Your task to perform on an android device: check android version Image 0: 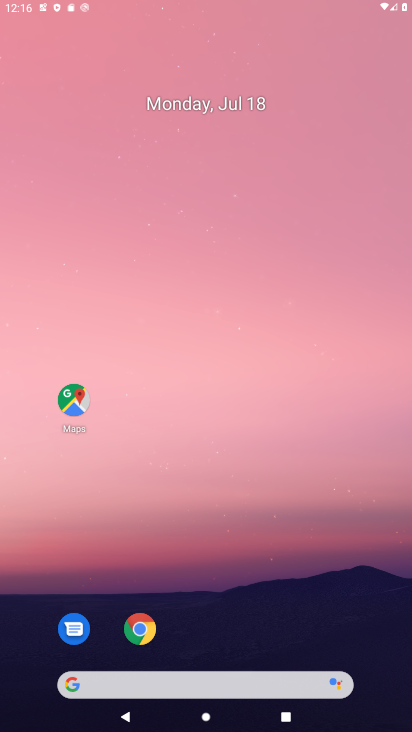
Step 0: press home button
Your task to perform on an android device: check android version Image 1: 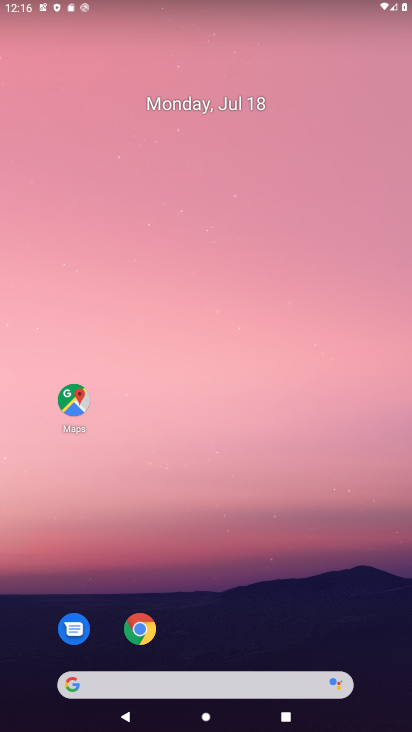
Step 1: drag from (211, 651) to (194, 49)
Your task to perform on an android device: check android version Image 2: 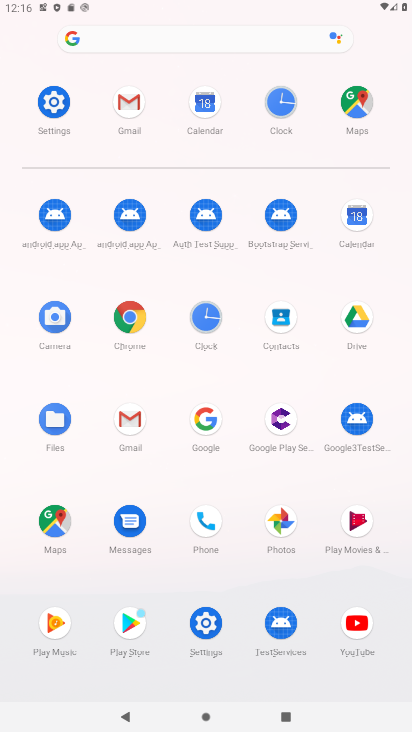
Step 2: click (53, 95)
Your task to perform on an android device: check android version Image 3: 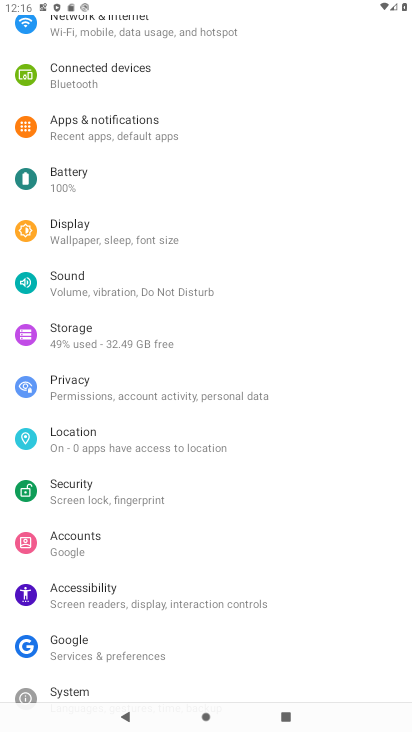
Step 3: drag from (178, 648) to (175, 89)
Your task to perform on an android device: check android version Image 4: 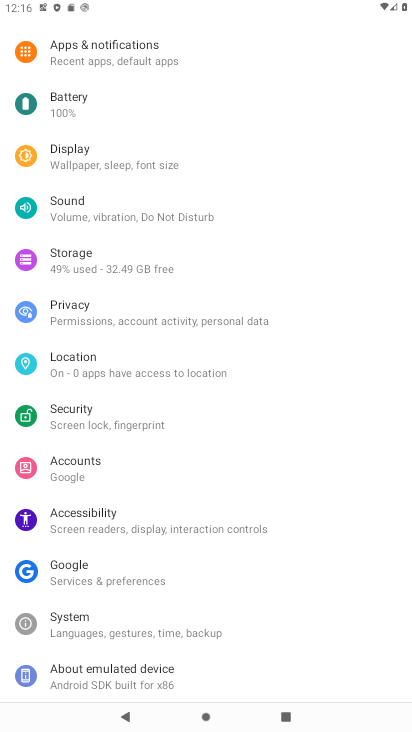
Step 4: click (192, 672)
Your task to perform on an android device: check android version Image 5: 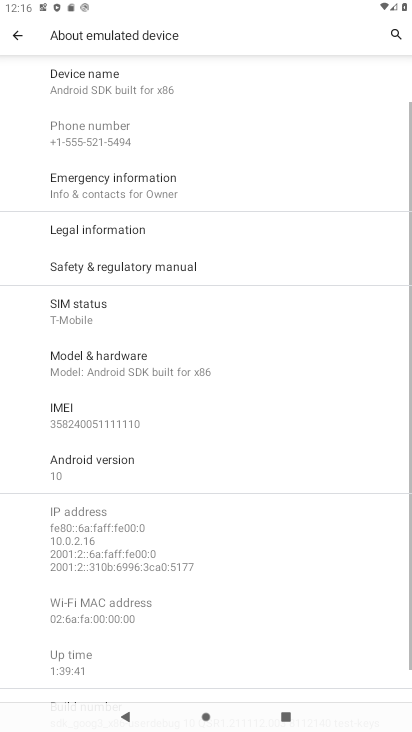
Step 5: click (88, 472)
Your task to perform on an android device: check android version Image 6: 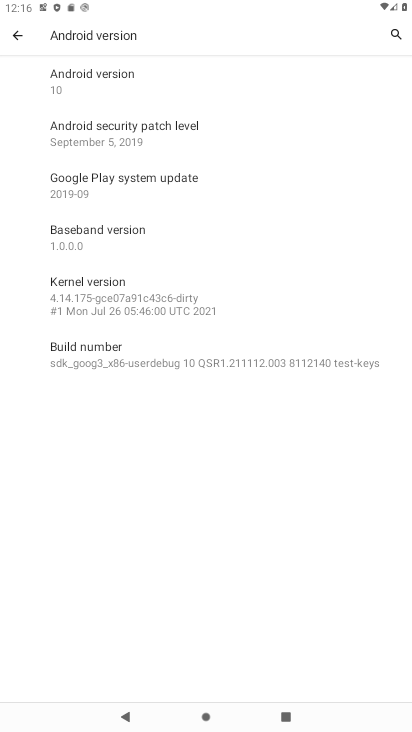
Step 6: task complete